Your task to perform on an android device: Open calendar and show me the third week of next month Image 0: 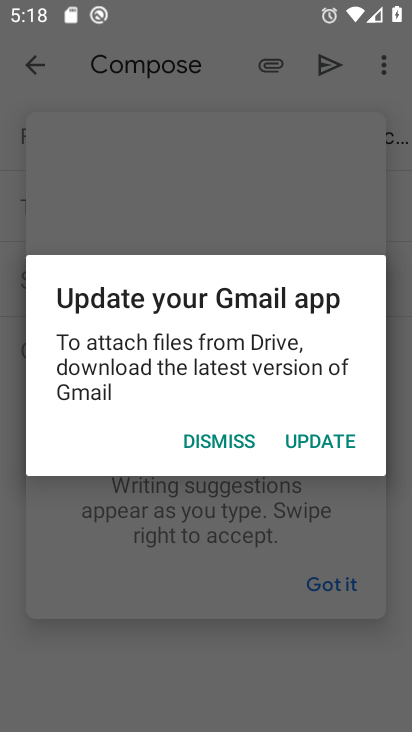
Step 0: press home button
Your task to perform on an android device: Open calendar and show me the third week of next month Image 1: 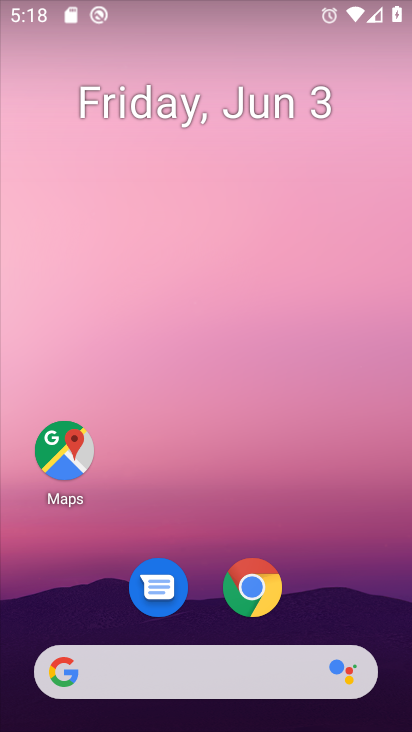
Step 1: drag from (132, 727) to (204, 10)
Your task to perform on an android device: Open calendar and show me the third week of next month Image 2: 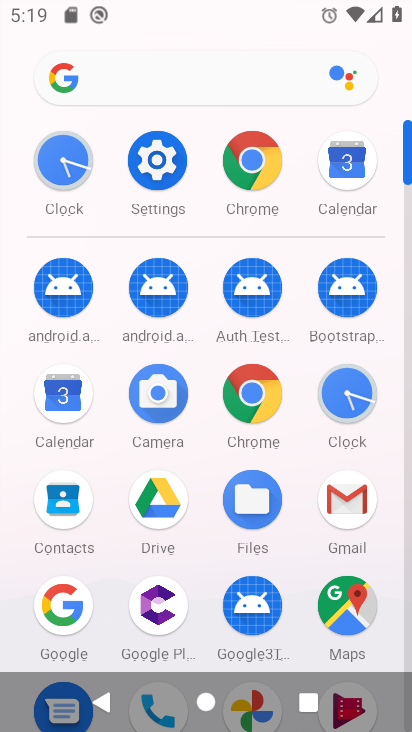
Step 2: click (346, 176)
Your task to perform on an android device: Open calendar and show me the third week of next month Image 3: 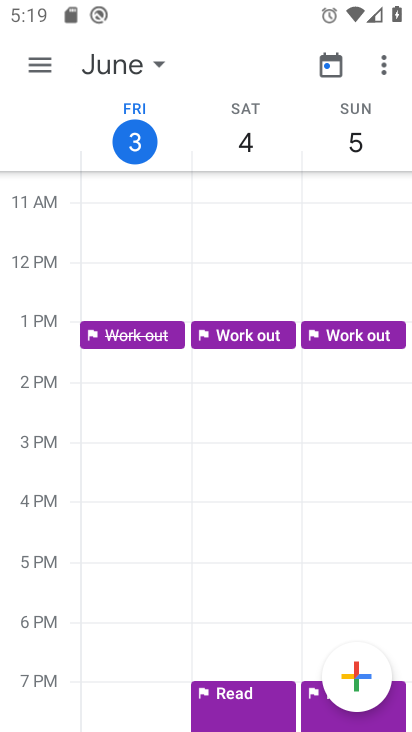
Step 3: click (44, 64)
Your task to perform on an android device: Open calendar and show me the third week of next month Image 4: 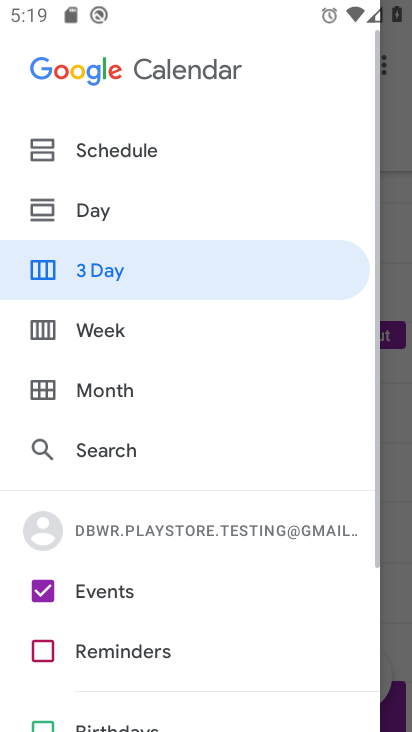
Step 4: click (94, 330)
Your task to perform on an android device: Open calendar and show me the third week of next month Image 5: 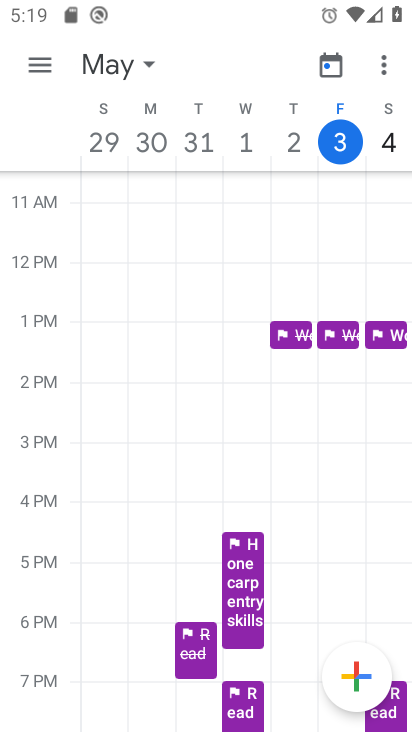
Step 5: drag from (387, 208) to (70, 224)
Your task to perform on an android device: Open calendar and show me the third week of next month Image 6: 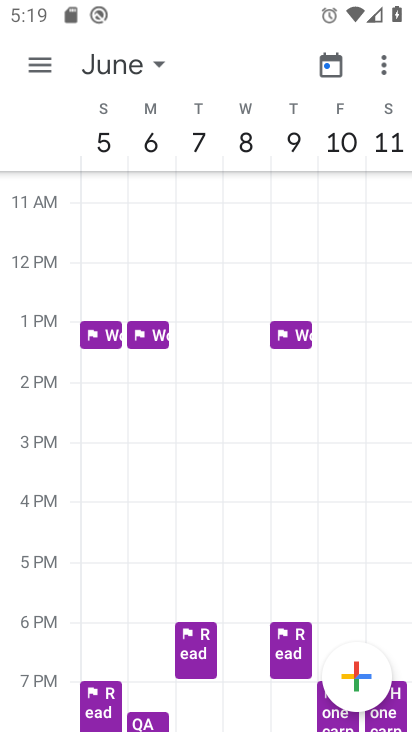
Step 6: click (160, 68)
Your task to perform on an android device: Open calendar and show me the third week of next month Image 7: 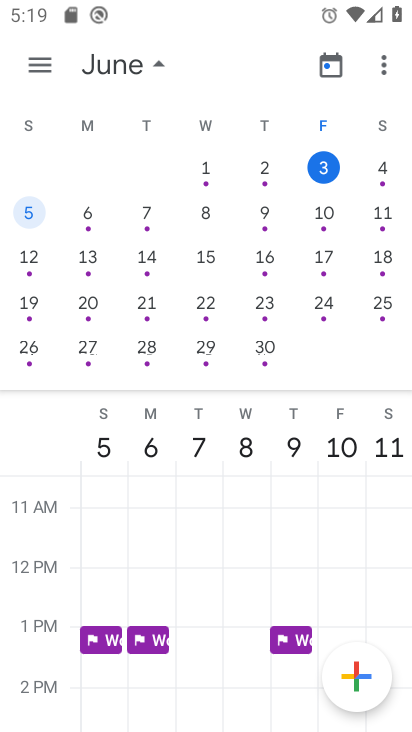
Step 7: drag from (375, 357) to (9, 364)
Your task to perform on an android device: Open calendar and show me the third week of next month Image 8: 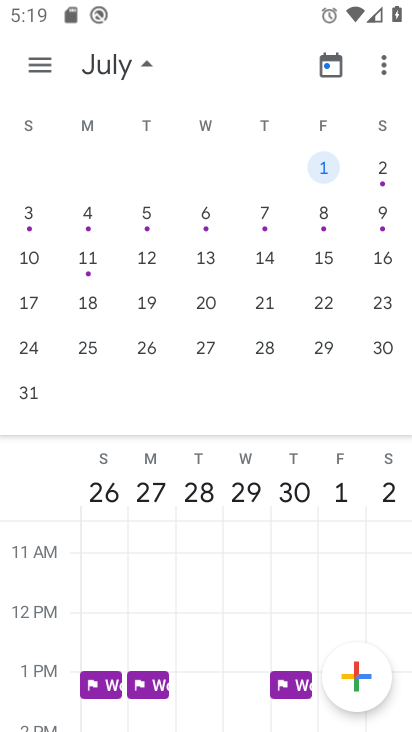
Step 8: click (153, 68)
Your task to perform on an android device: Open calendar and show me the third week of next month Image 9: 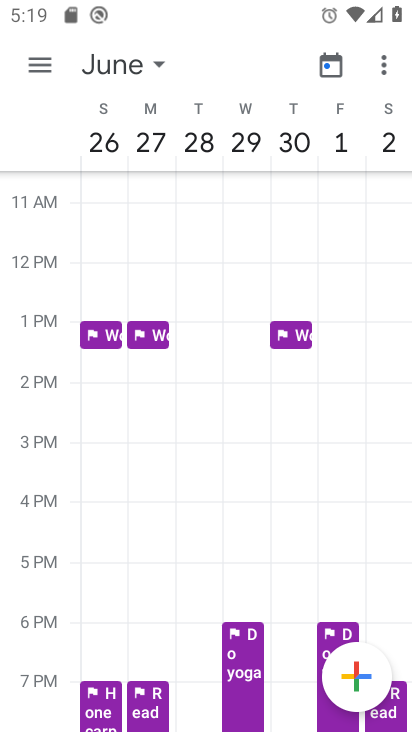
Step 9: task complete